Your task to perform on an android device: find which apps use the phone's location Image 0: 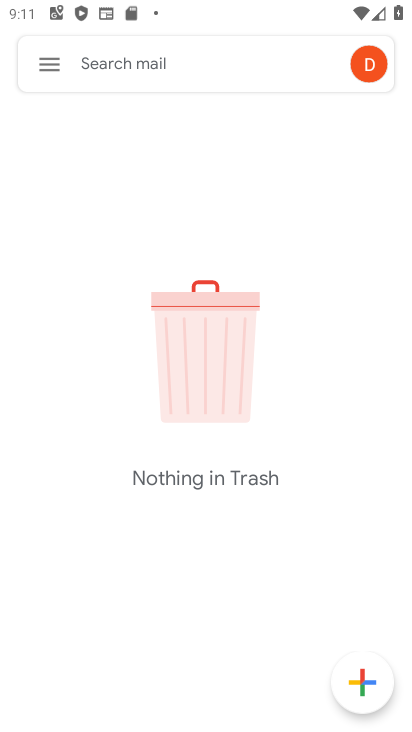
Step 0: press back button
Your task to perform on an android device: find which apps use the phone's location Image 1: 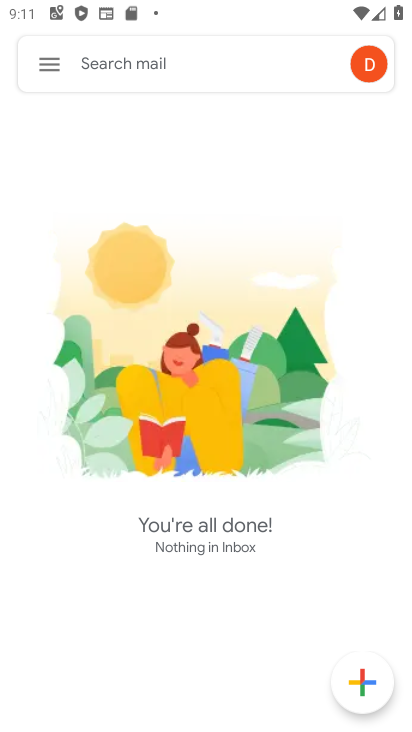
Step 1: press home button
Your task to perform on an android device: find which apps use the phone's location Image 2: 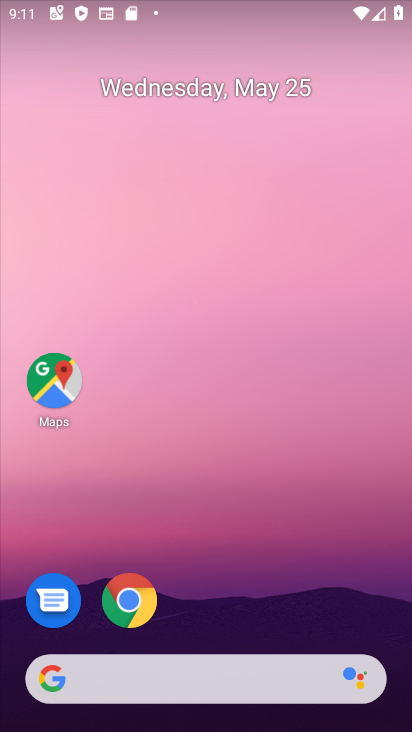
Step 2: drag from (247, 584) to (217, 34)
Your task to perform on an android device: find which apps use the phone's location Image 3: 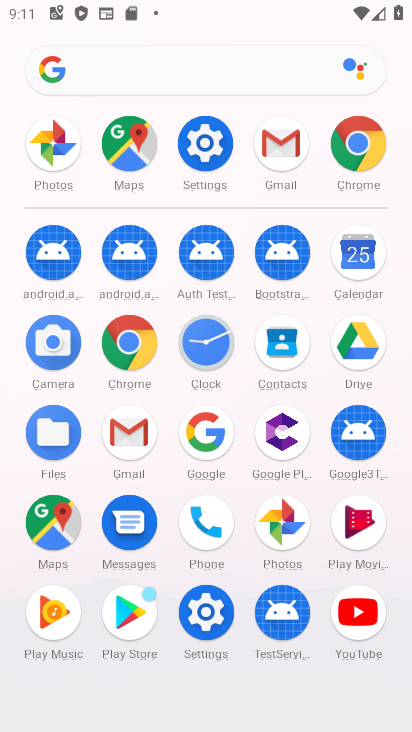
Step 3: click (205, 613)
Your task to perform on an android device: find which apps use the phone's location Image 4: 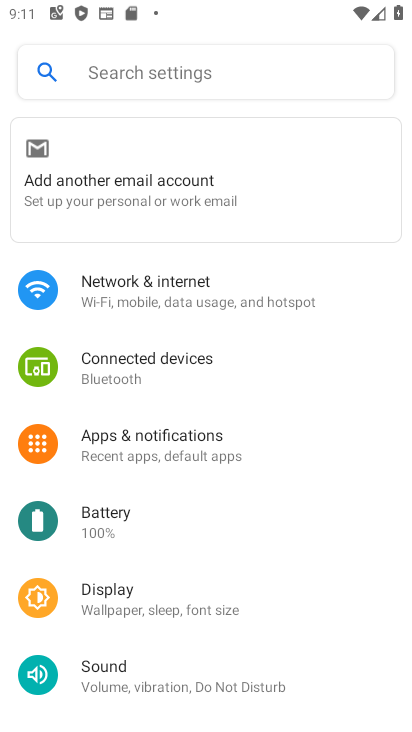
Step 4: drag from (233, 607) to (253, 232)
Your task to perform on an android device: find which apps use the phone's location Image 5: 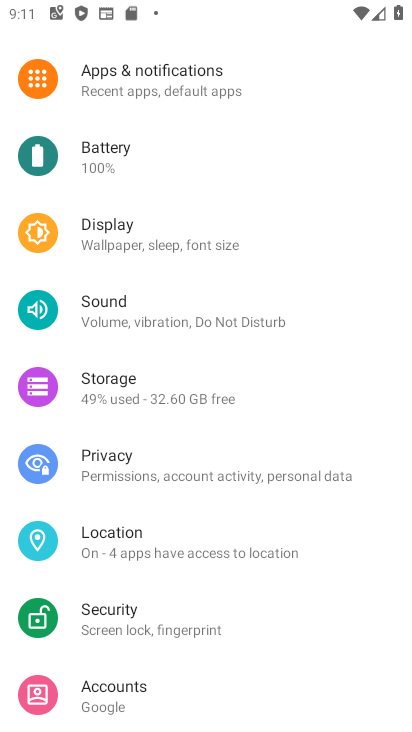
Step 5: click (128, 550)
Your task to perform on an android device: find which apps use the phone's location Image 6: 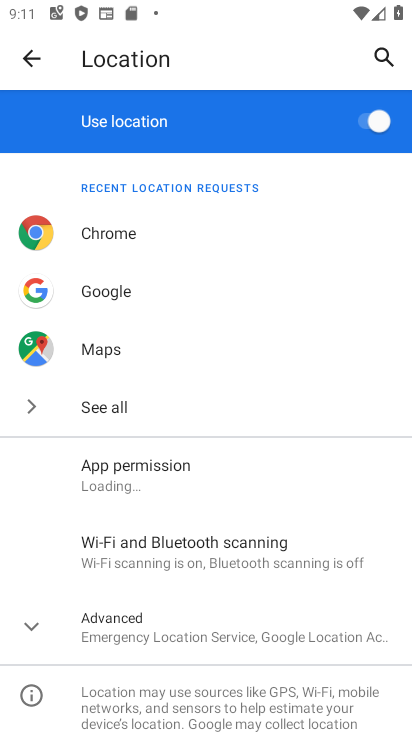
Step 6: click (141, 475)
Your task to perform on an android device: find which apps use the phone's location Image 7: 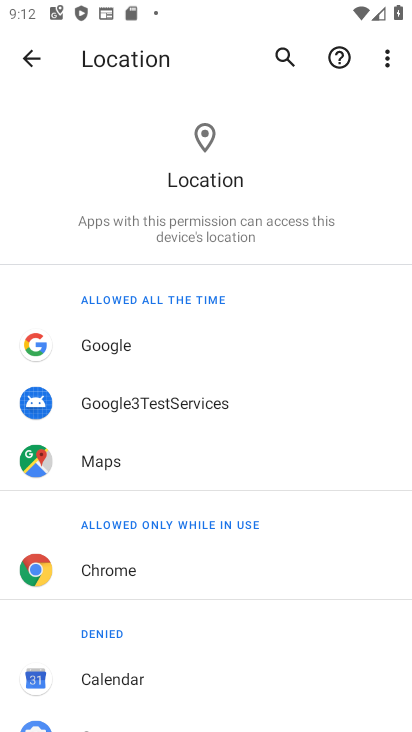
Step 7: task complete